Your task to perform on an android device: Go to notification settings Image 0: 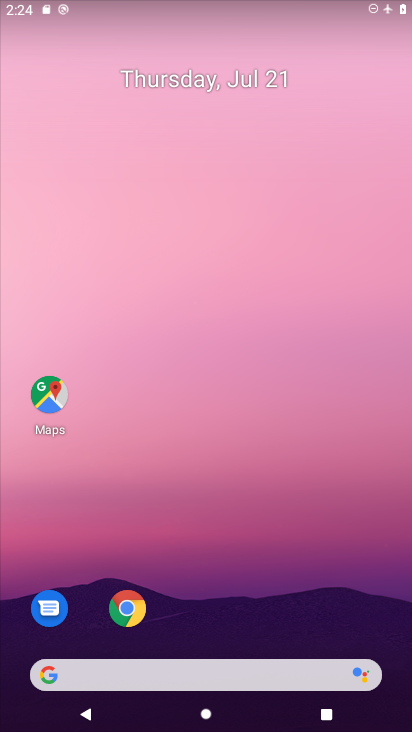
Step 0: drag from (238, 707) to (238, 179)
Your task to perform on an android device: Go to notification settings Image 1: 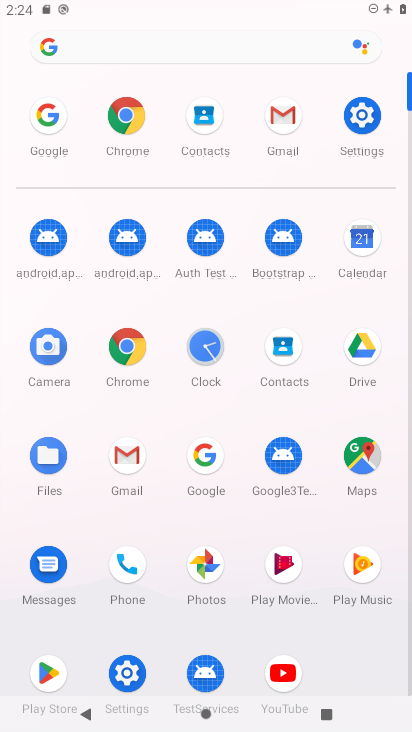
Step 1: click (362, 118)
Your task to perform on an android device: Go to notification settings Image 2: 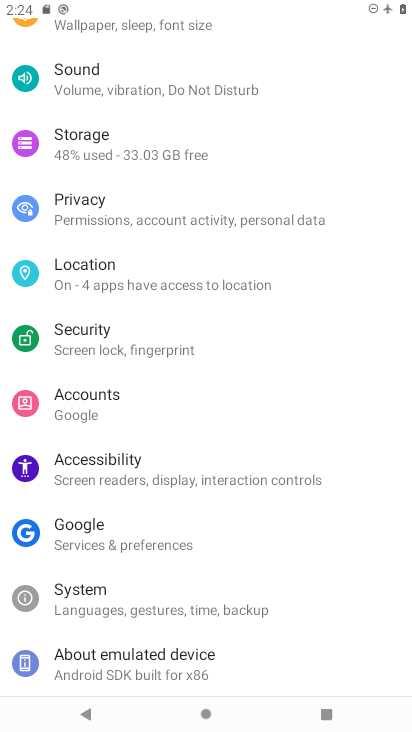
Step 2: drag from (129, 133) to (165, 567)
Your task to perform on an android device: Go to notification settings Image 3: 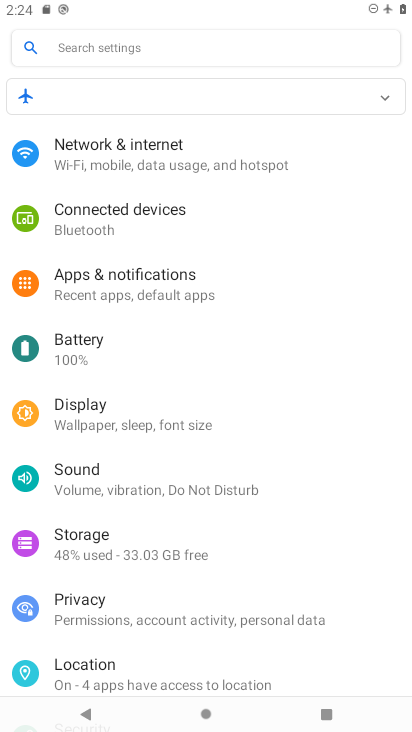
Step 3: click (120, 279)
Your task to perform on an android device: Go to notification settings Image 4: 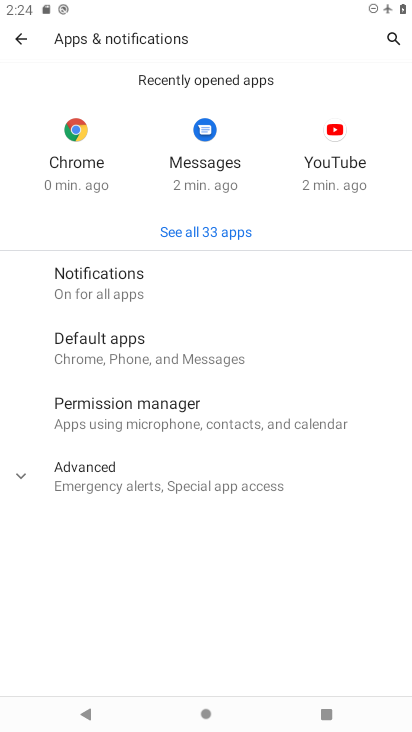
Step 4: click (97, 280)
Your task to perform on an android device: Go to notification settings Image 5: 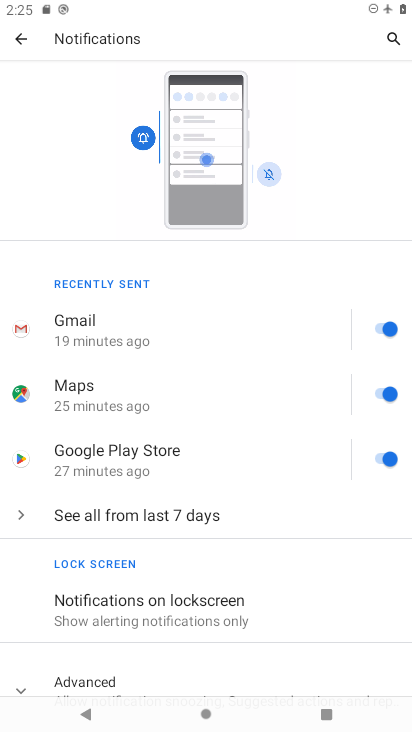
Step 5: task complete